Your task to perform on an android device: Open location settings Image 0: 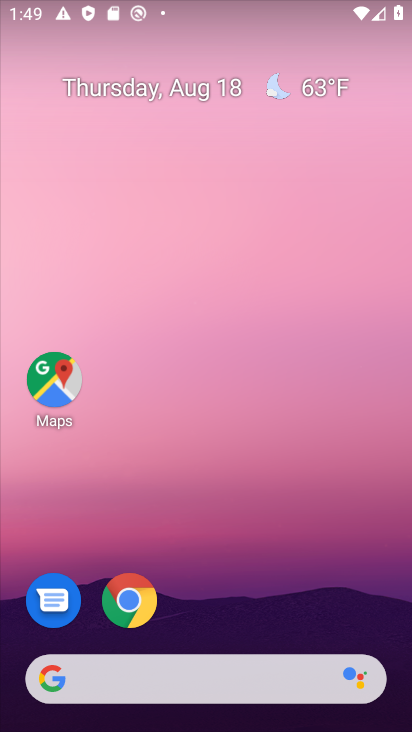
Step 0: drag from (208, 296) to (201, 201)
Your task to perform on an android device: Open location settings Image 1: 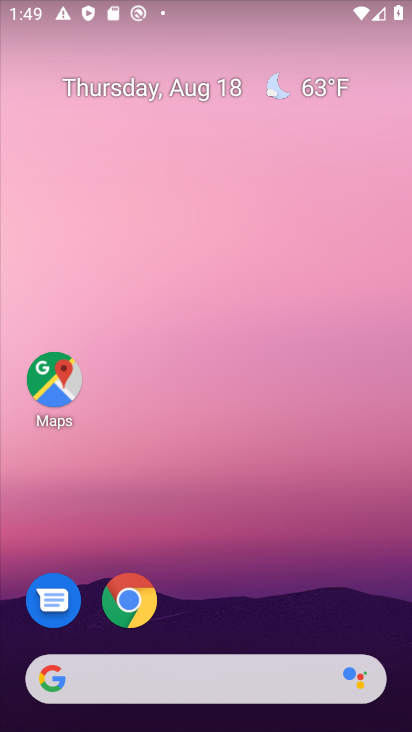
Step 1: drag from (235, 627) to (184, 174)
Your task to perform on an android device: Open location settings Image 2: 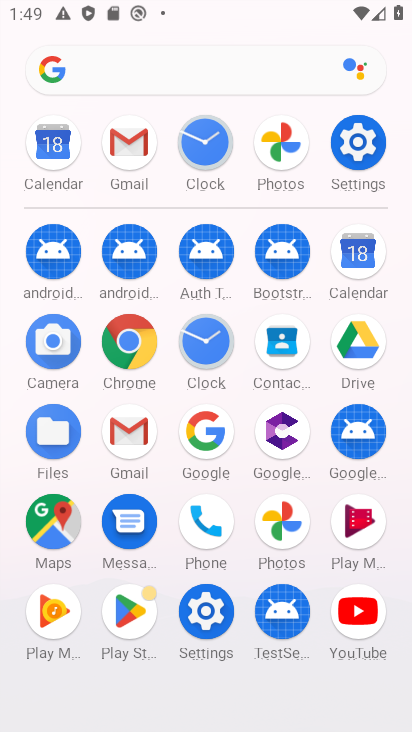
Step 2: click (360, 139)
Your task to perform on an android device: Open location settings Image 3: 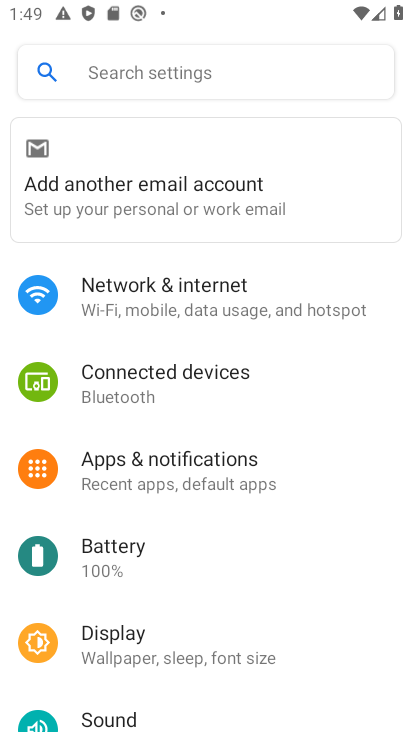
Step 3: drag from (221, 608) to (187, 286)
Your task to perform on an android device: Open location settings Image 4: 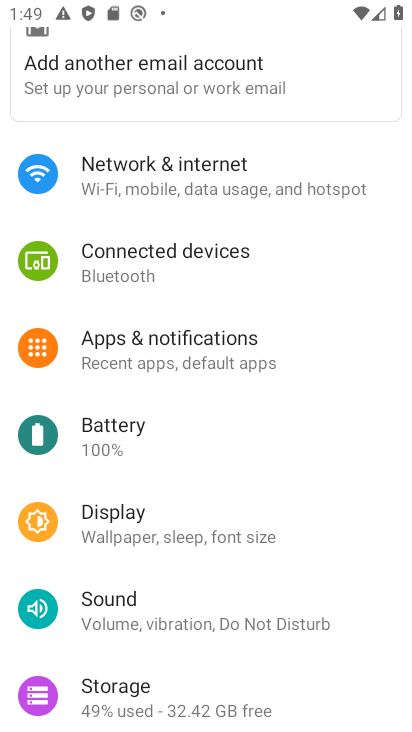
Step 4: drag from (194, 659) to (167, 434)
Your task to perform on an android device: Open location settings Image 5: 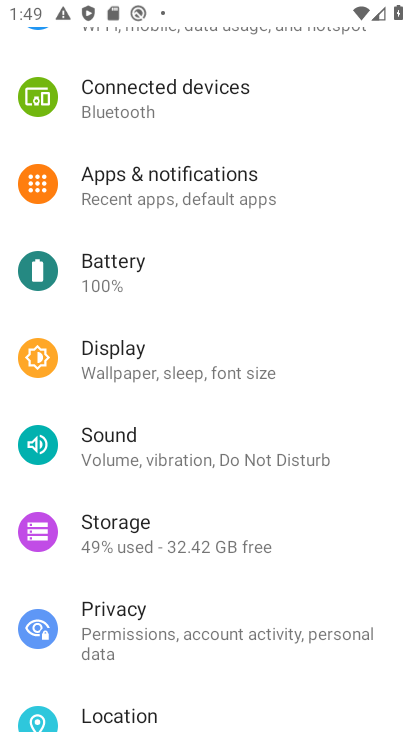
Step 5: drag from (202, 667) to (187, 397)
Your task to perform on an android device: Open location settings Image 6: 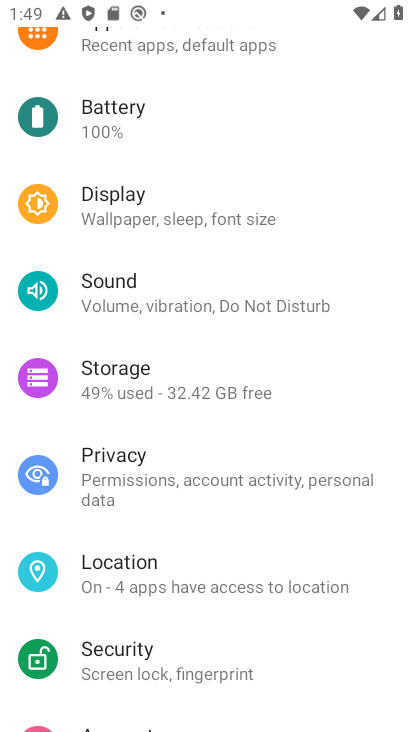
Step 6: click (111, 572)
Your task to perform on an android device: Open location settings Image 7: 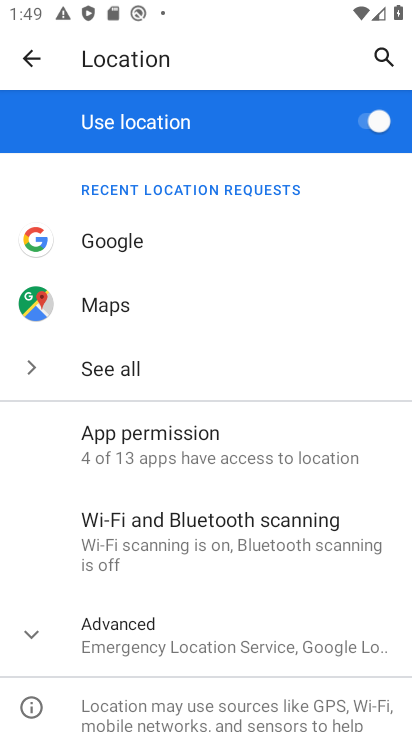
Step 7: task complete